Your task to perform on an android device: Open calendar and show me the third week of next month Image 0: 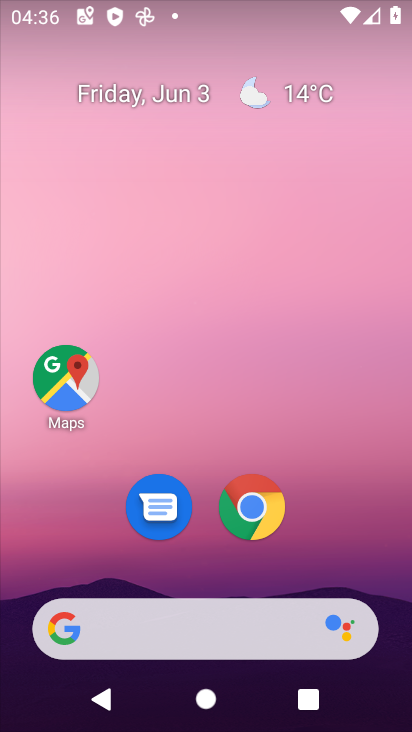
Step 0: press home button
Your task to perform on an android device: Open calendar and show me the third week of next month Image 1: 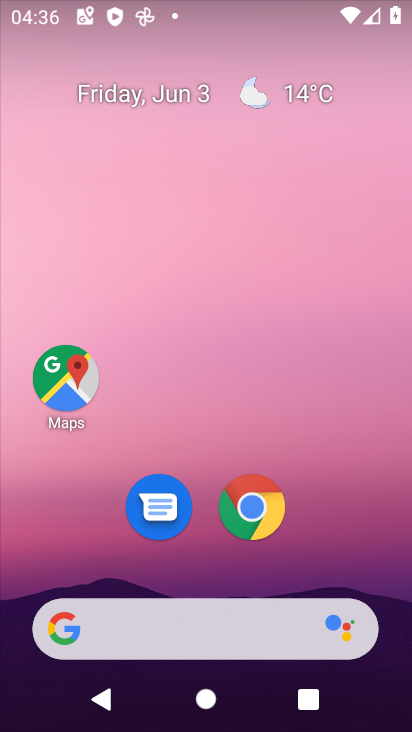
Step 1: drag from (342, 505) to (311, 153)
Your task to perform on an android device: Open calendar and show me the third week of next month Image 2: 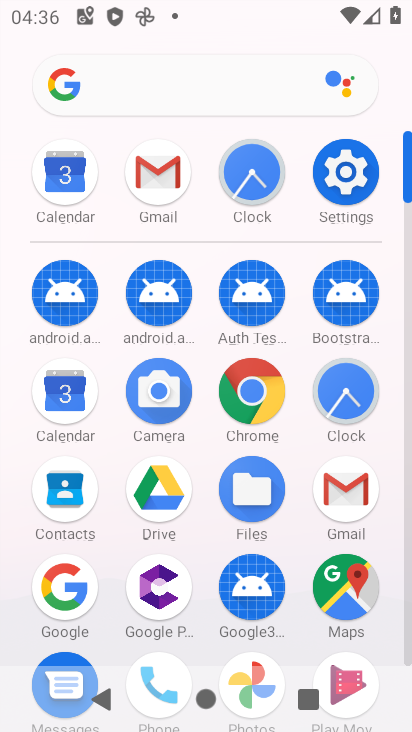
Step 2: click (53, 184)
Your task to perform on an android device: Open calendar and show me the third week of next month Image 3: 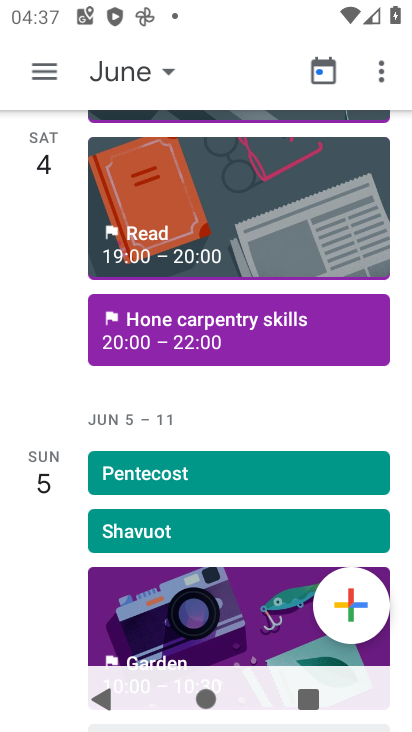
Step 3: click (40, 75)
Your task to perform on an android device: Open calendar and show me the third week of next month Image 4: 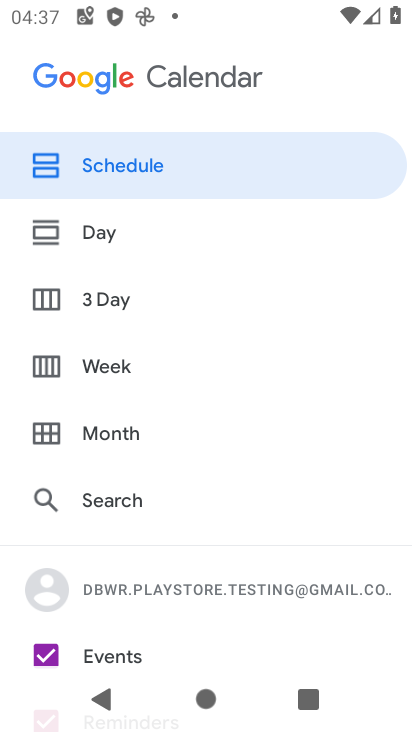
Step 4: click (108, 439)
Your task to perform on an android device: Open calendar and show me the third week of next month Image 5: 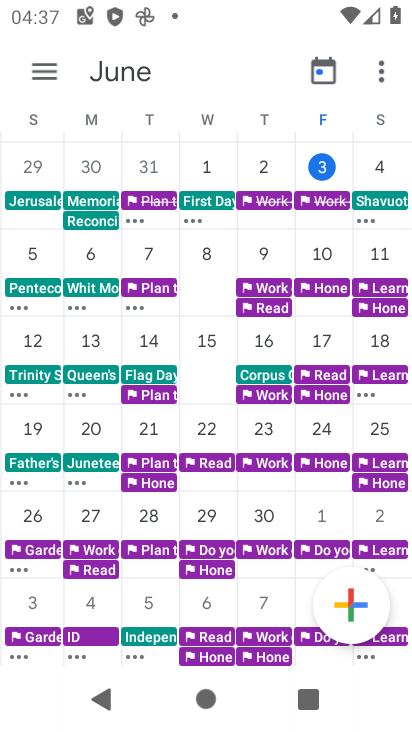
Step 5: drag from (349, 428) to (14, 466)
Your task to perform on an android device: Open calendar and show me the third week of next month Image 6: 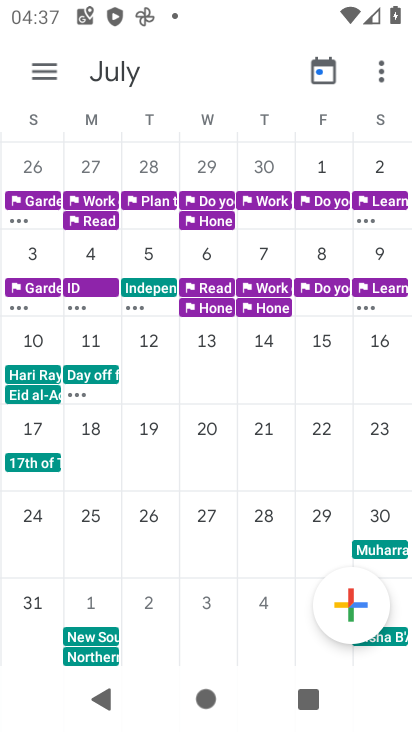
Step 6: click (12, 351)
Your task to perform on an android device: Open calendar and show me the third week of next month Image 7: 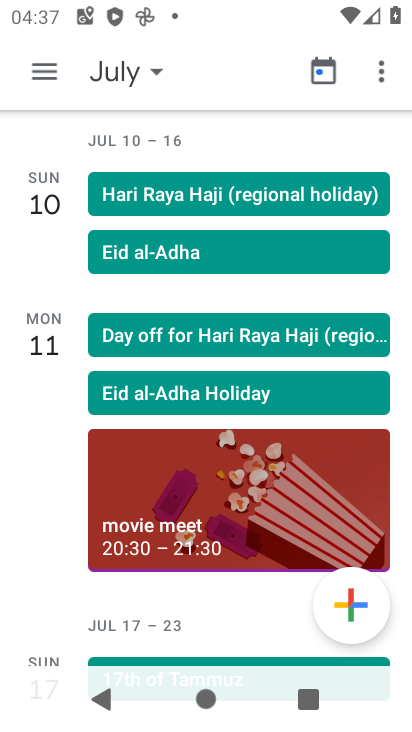
Step 7: drag from (52, 562) to (9, 126)
Your task to perform on an android device: Open calendar and show me the third week of next month Image 8: 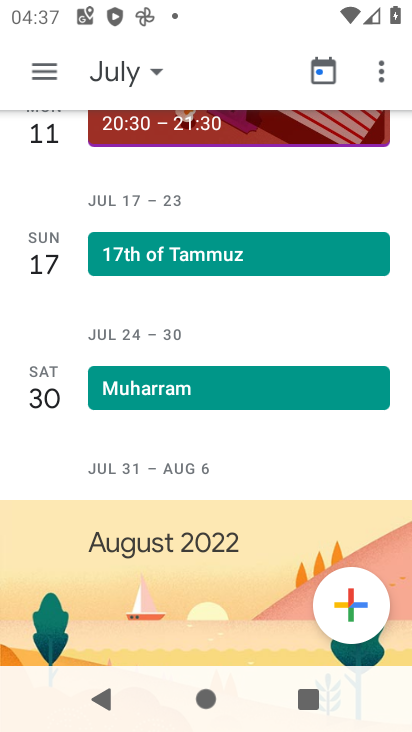
Step 8: click (47, 72)
Your task to perform on an android device: Open calendar and show me the third week of next month Image 9: 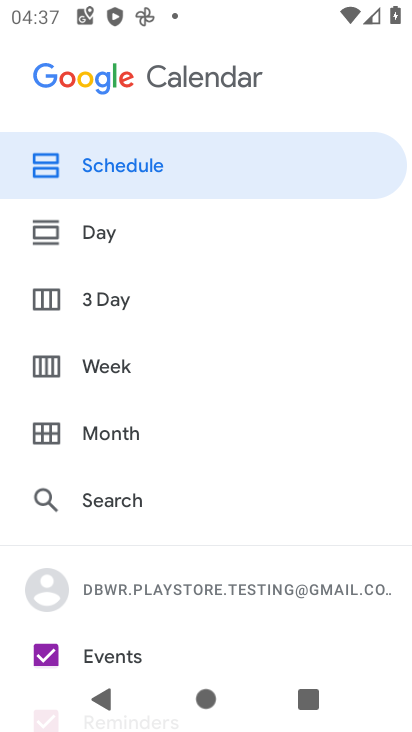
Step 9: click (109, 367)
Your task to perform on an android device: Open calendar and show me the third week of next month Image 10: 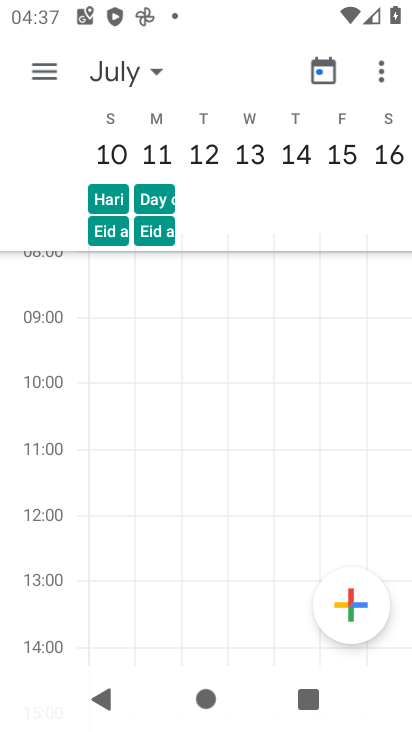
Step 10: task complete